Your task to perform on an android device: Go to Amazon Image 0: 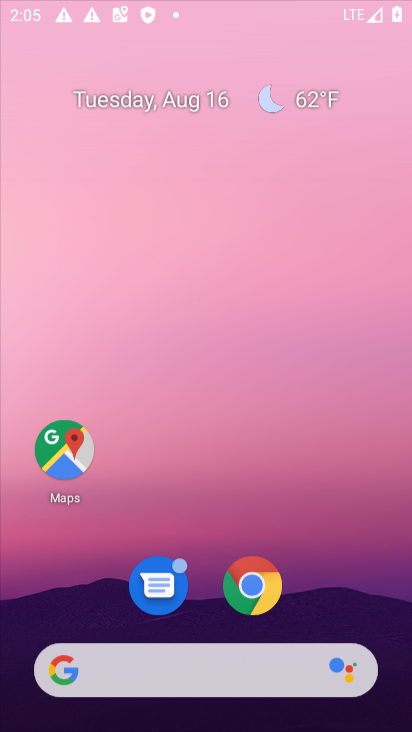
Step 0: click (228, 71)
Your task to perform on an android device: Go to Amazon Image 1: 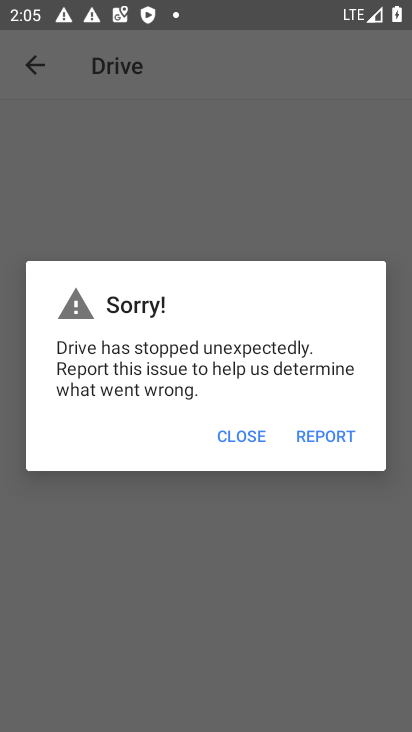
Step 1: click (231, 439)
Your task to perform on an android device: Go to Amazon Image 2: 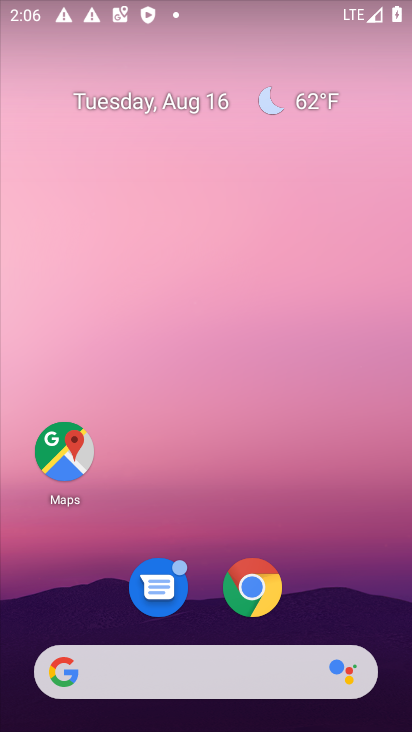
Step 2: click (261, 588)
Your task to perform on an android device: Go to Amazon Image 3: 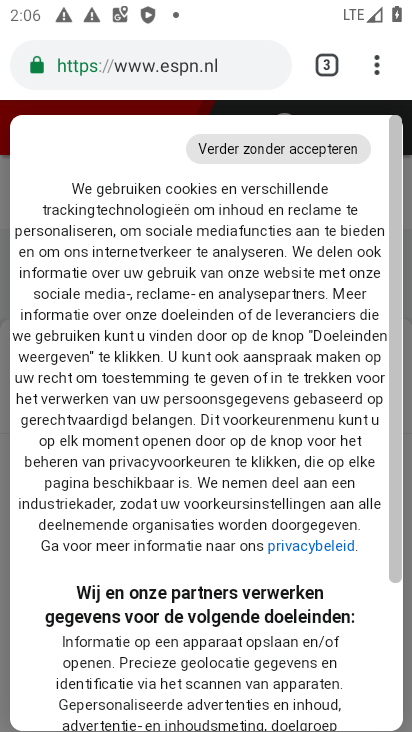
Step 3: click (327, 60)
Your task to perform on an android device: Go to Amazon Image 4: 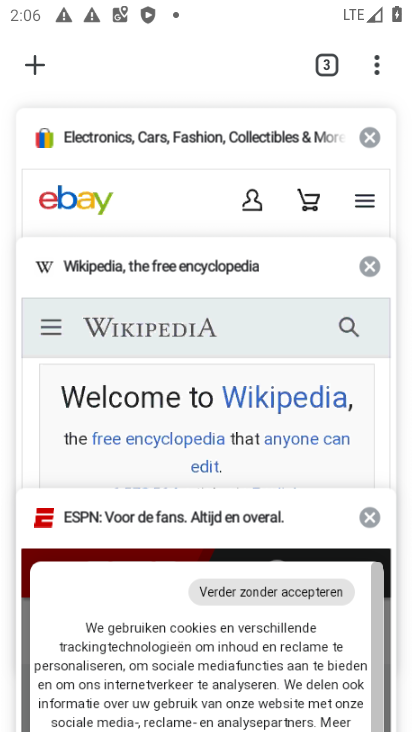
Step 4: click (21, 67)
Your task to perform on an android device: Go to Amazon Image 5: 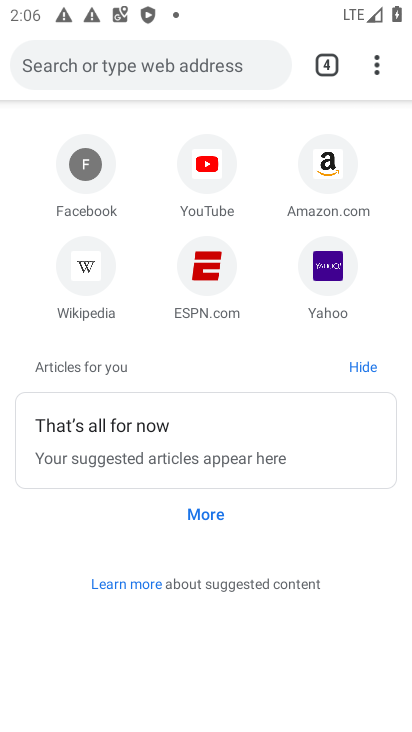
Step 5: click (325, 164)
Your task to perform on an android device: Go to Amazon Image 6: 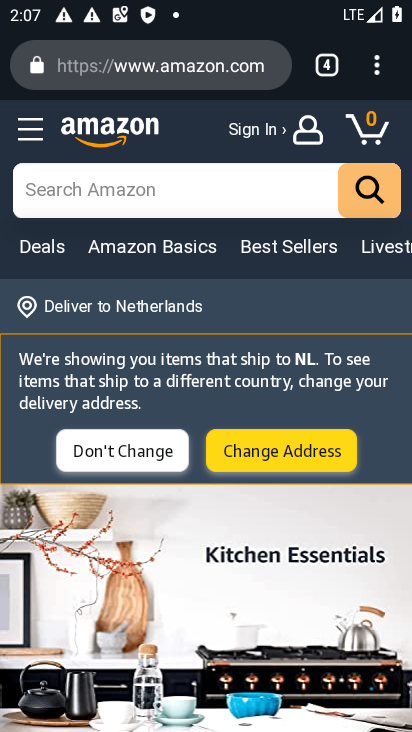
Step 6: task complete